Your task to perform on an android device: turn on notifications settings in the gmail app Image 0: 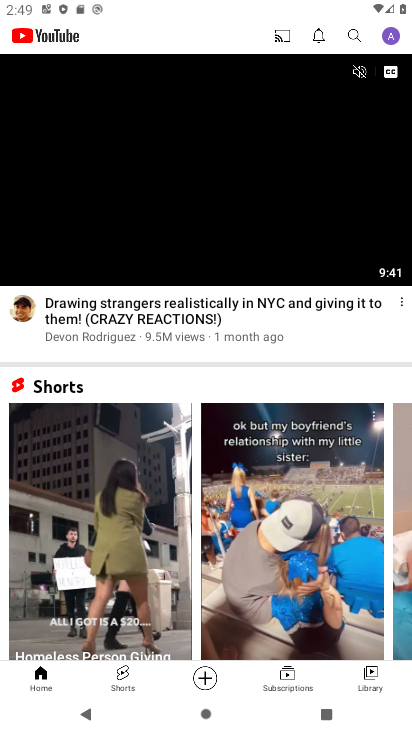
Step 0: press home button
Your task to perform on an android device: turn on notifications settings in the gmail app Image 1: 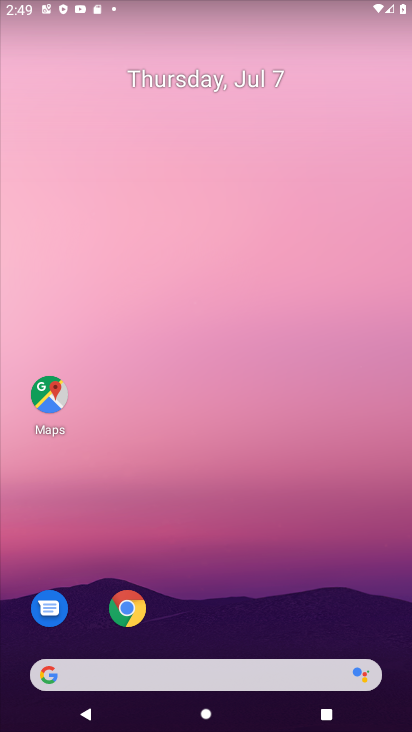
Step 1: drag from (378, 629) to (356, 86)
Your task to perform on an android device: turn on notifications settings in the gmail app Image 2: 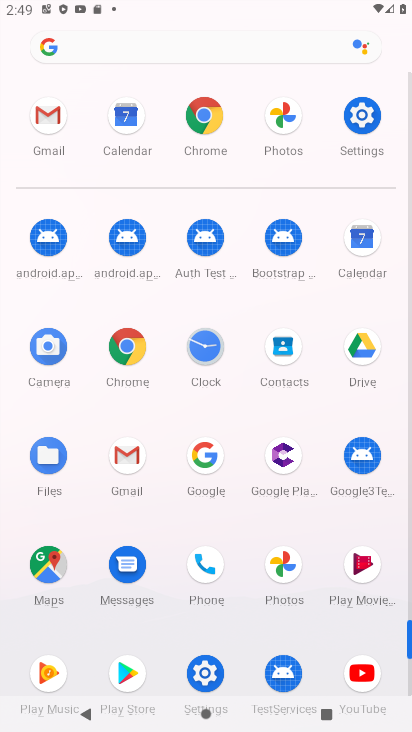
Step 2: click (123, 454)
Your task to perform on an android device: turn on notifications settings in the gmail app Image 3: 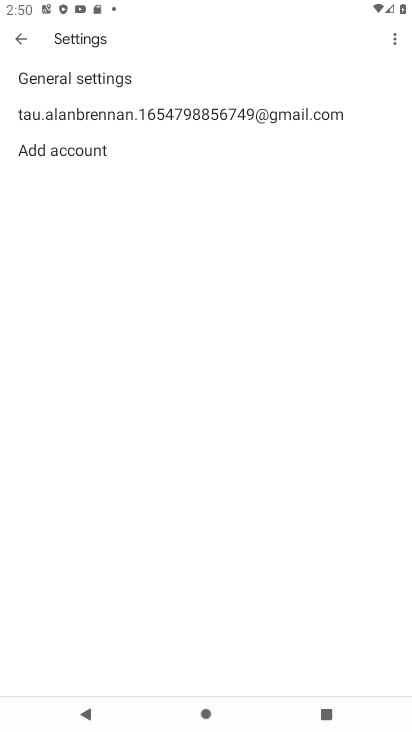
Step 3: click (114, 118)
Your task to perform on an android device: turn on notifications settings in the gmail app Image 4: 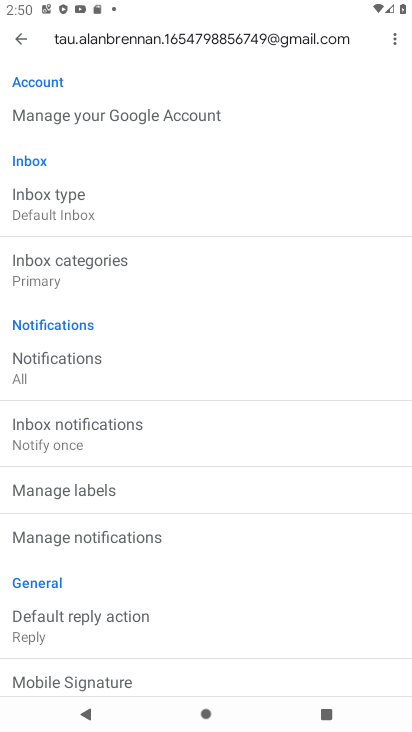
Step 4: click (99, 536)
Your task to perform on an android device: turn on notifications settings in the gmail app Image 5: 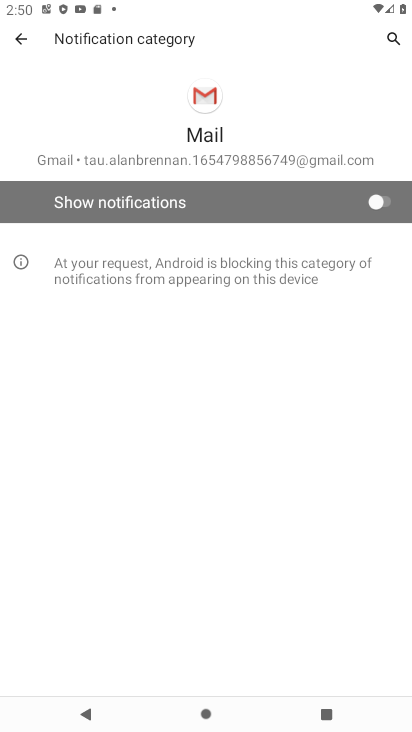
Step 5: click (383, 201)
Your task to perform on an android device: turn on notifications settings in the gmail app Image 6: 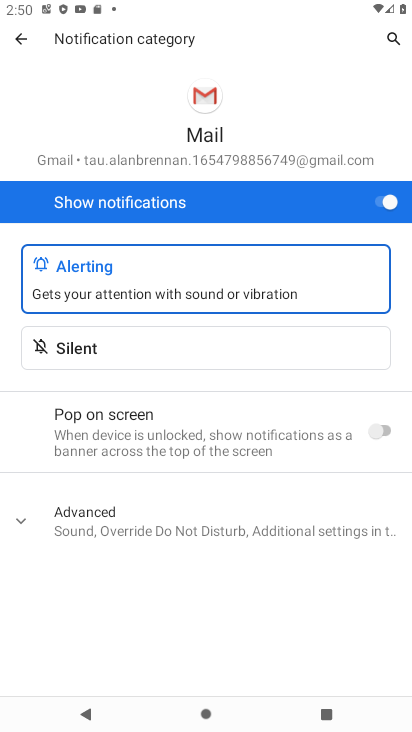
Step 6: task complete